Your task to perform on an android device: open device folders in google photos Image 0: 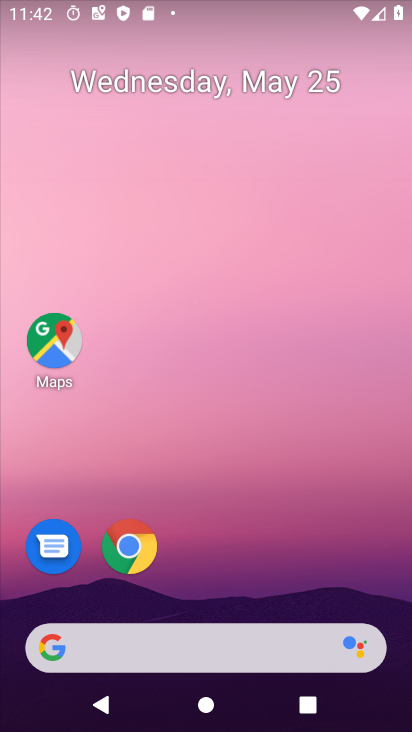
Step 0: drag from (255, 560) to (295, 50)
Your task to perform on an android device: open device folders in google photos Image 1: 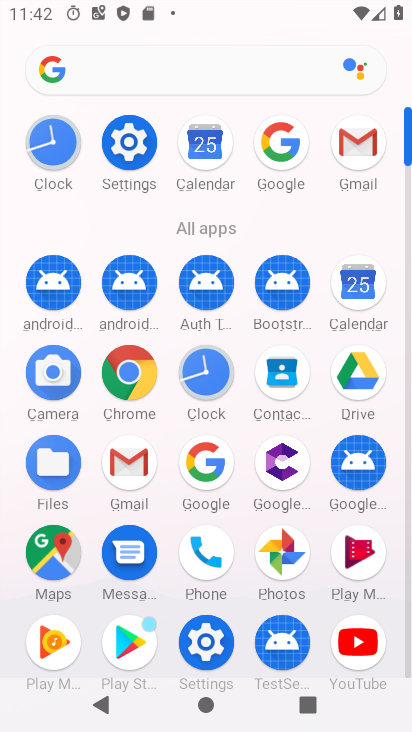
Step 1: click (279, 560)
Your task to perform on an android device: open device folders in google photos Image 2: 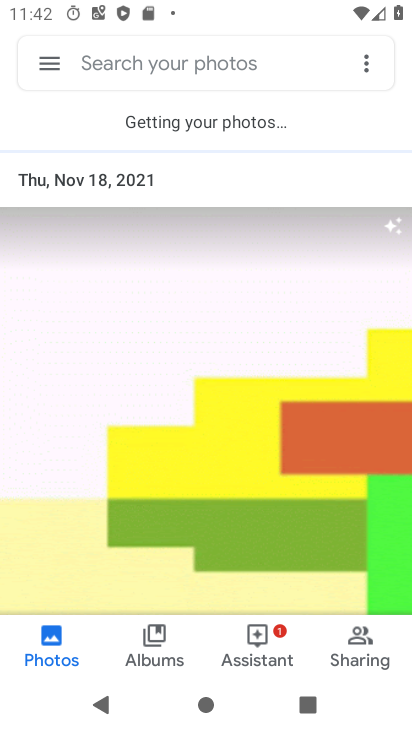
Step 2: click (48, 59)
Your task to perform on an android device: open device folders in google photos Image 3: 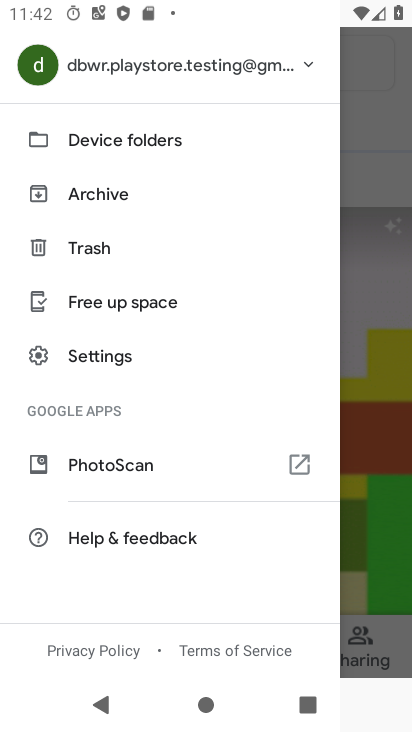
Step 3: click (131, 132)
Your task to perform on an android device: open device folders in google photos Image 4: 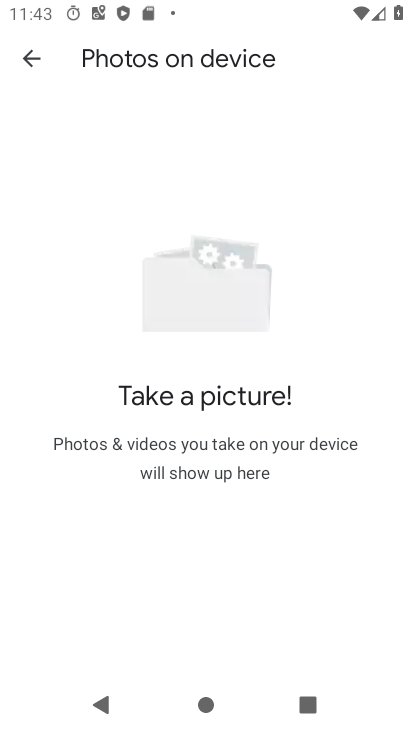
Step 4: task complete